Your task to perform on an android device: clear history in the chrome app Image 0: 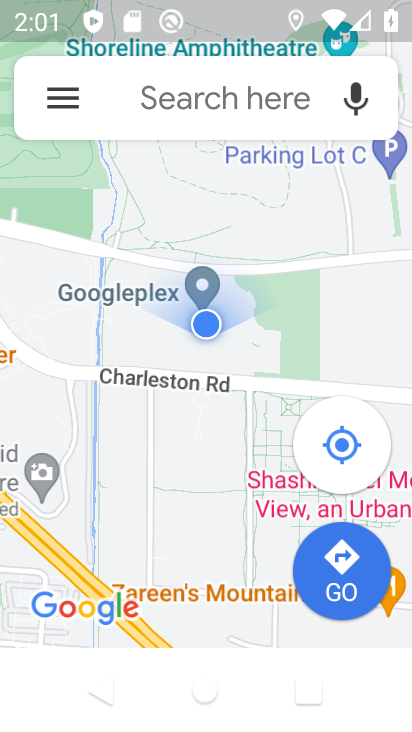
Step 0: press home button
Your task to perform on an android device: clear history in the chrome app Image 1: 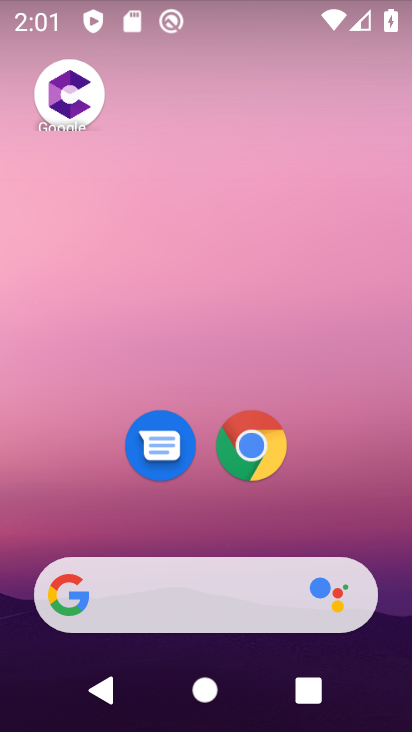
Step 1: click (259, 464)
Your task to perform on an android device: clear history in the chrome app Image 2: 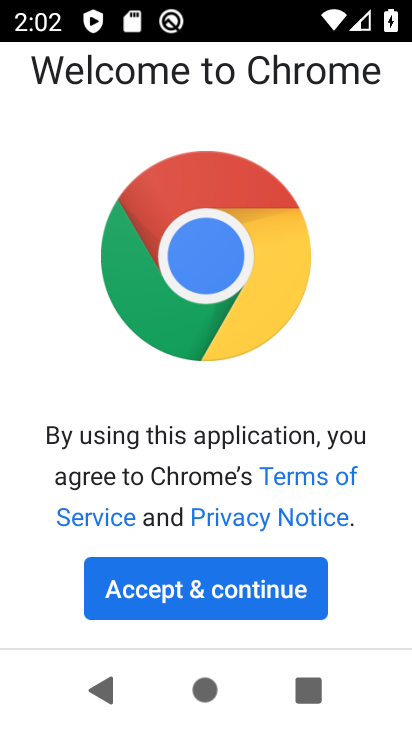
Step 2: click (211, 601)
Your task to perform on an android device: clear history in the chrome app Image 3: 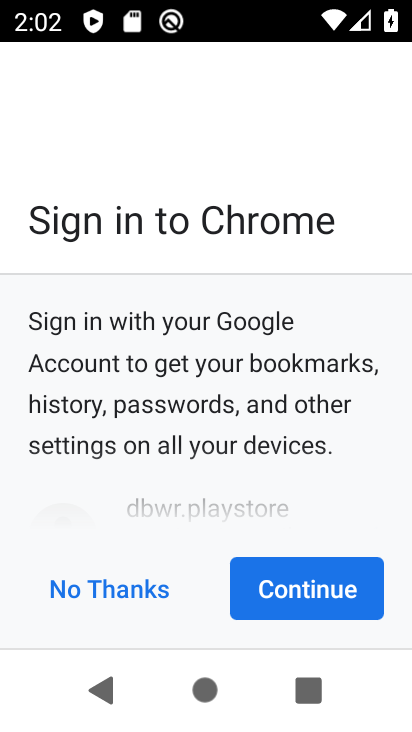
Step 3: click (354, 603)
Your task to perform on an android device: clear history in the chrome app Image 4: 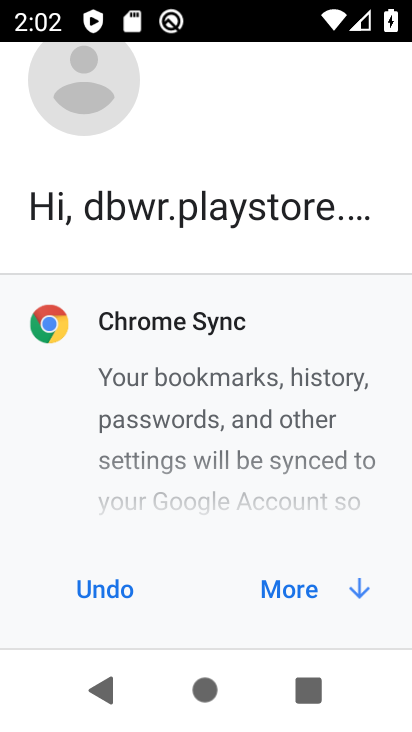
Step 4: click (354, 603)
Your task to perform on an android device: clear history in the chrome app Image 5: 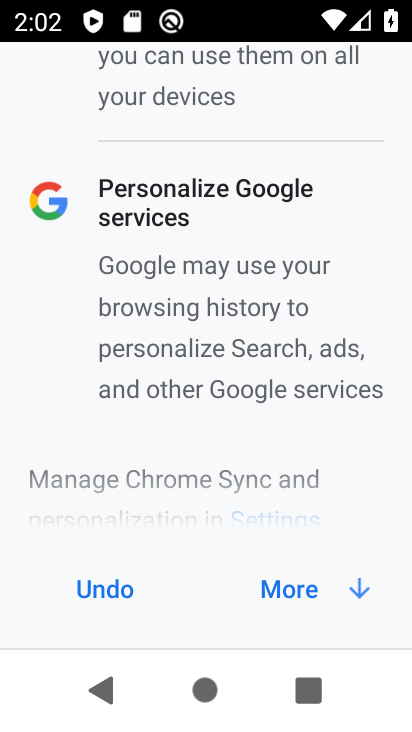
Step 5: click (354, 603)
Your task to perform on an android device: clear history in the chrome app Image 6: 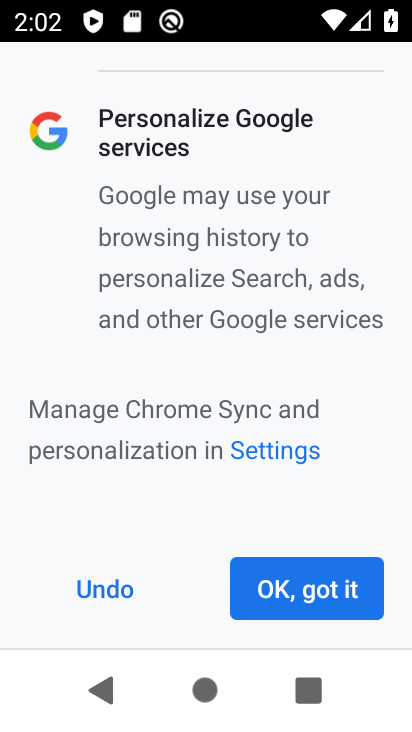
Step 6: click (354, 603)
Your task to perform on an android device: clear history in the chrome app Image 7: 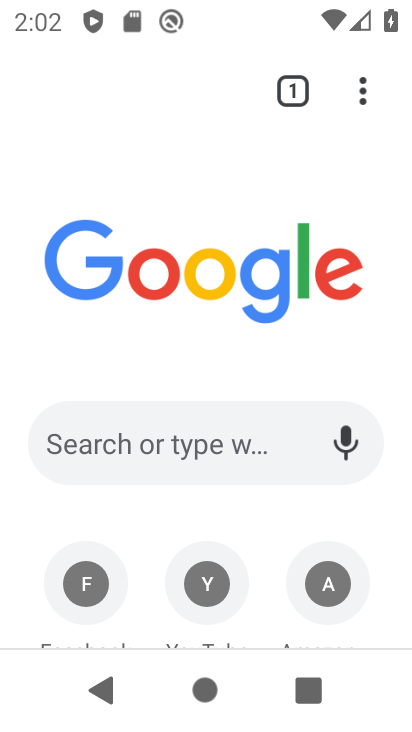
Step 7: click (366, 88)
Your task to perform on an android device: clear history in the chrome app Image 8: 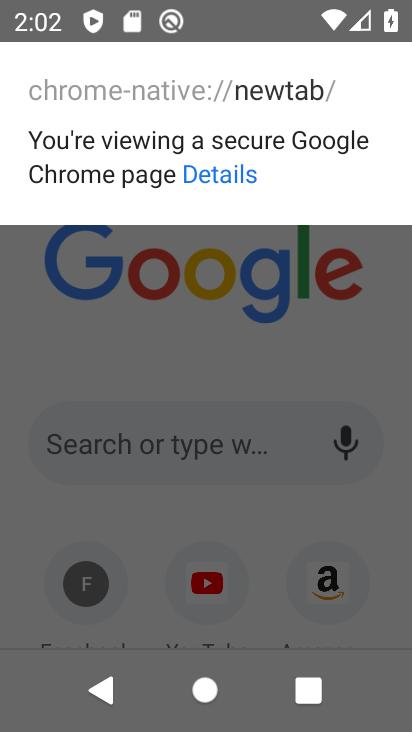
Step 8: click (369, 338)
Your task to perform on an android device: clear history in the chrome app Image 9: 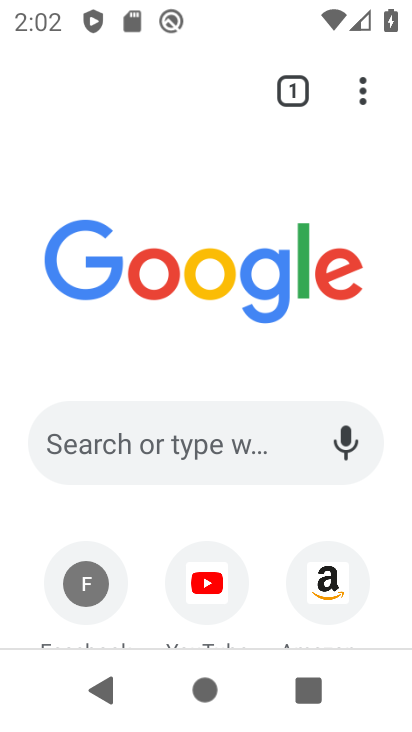
Step 9: task complete